Your task to perform on an android device: turn off location Image 0: 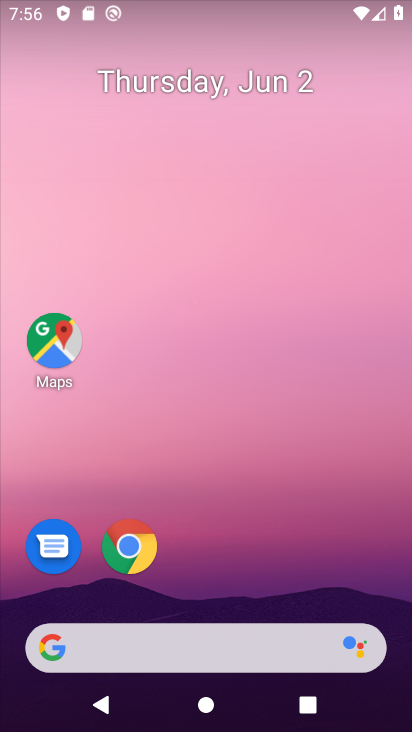
Step 0: drag from (233, 477) to (213, 206)
Your task to perform on an android device: turn off location Image 1: 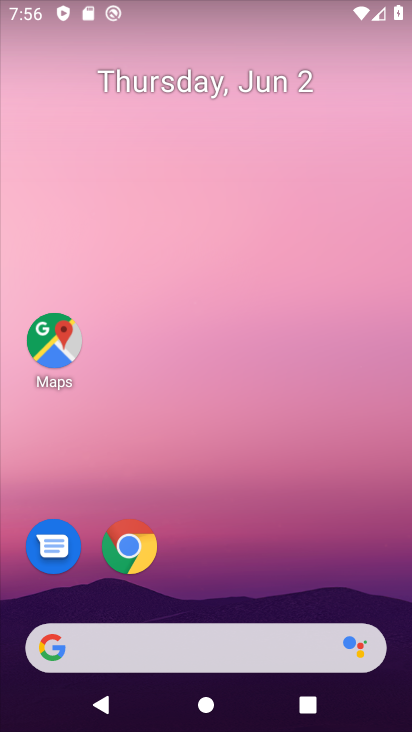
Step 1: drag from (267, 696) to (150, 22)
Your task to perform on an android device: turn off location Image 2: 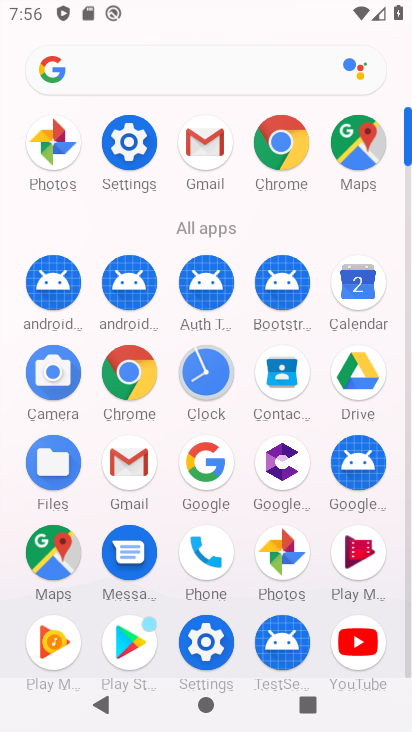
Step 2: click (126, 137)
Your task to perform on an android device: turn off location Image 3: 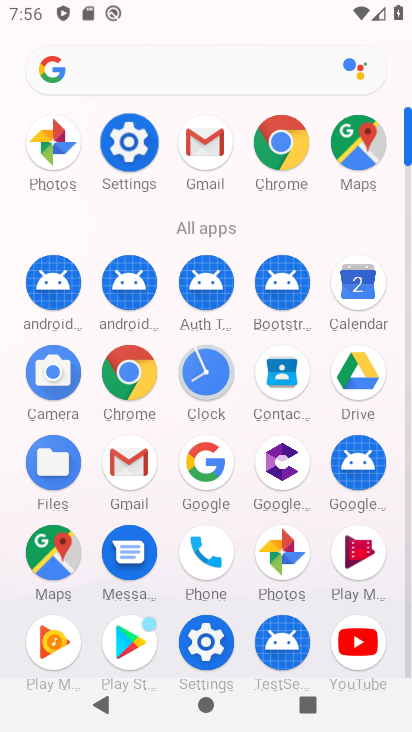
Step 3: click (126, 137)
Your task to perform on an android device: turn off location Image 4: 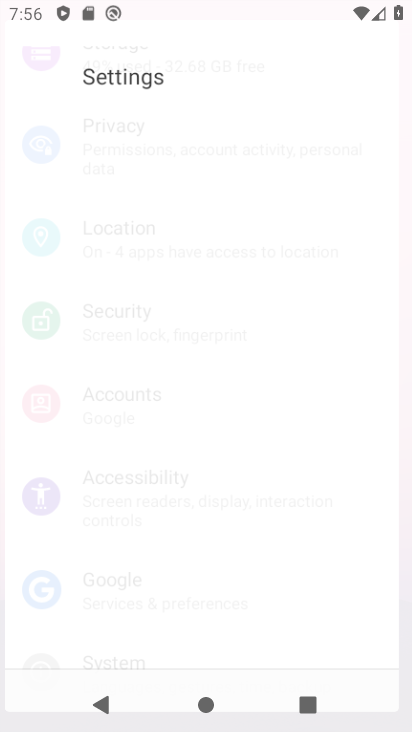
Step 4: click (121, 122)
Your task to perform on an android device: turn off location Image 5: 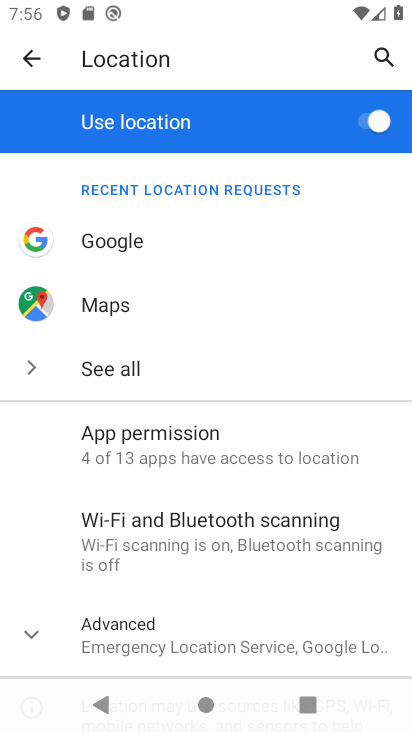
Step 5: click (365, 122)
Your task to perform on an android device: turn off location Image 6: 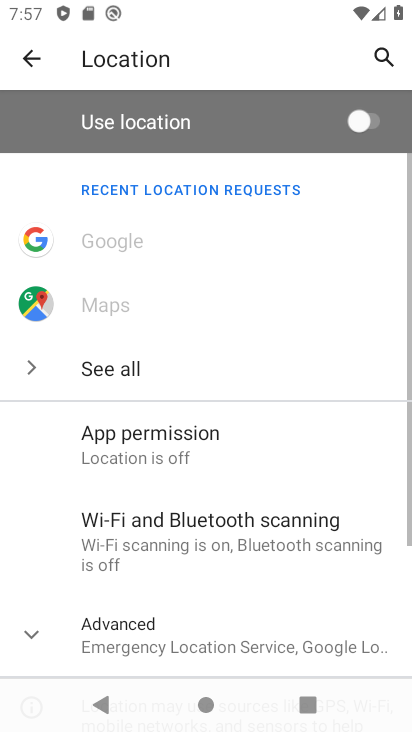
Step 6: task complete